Your task to perform on an android device: check data usage Image 0: 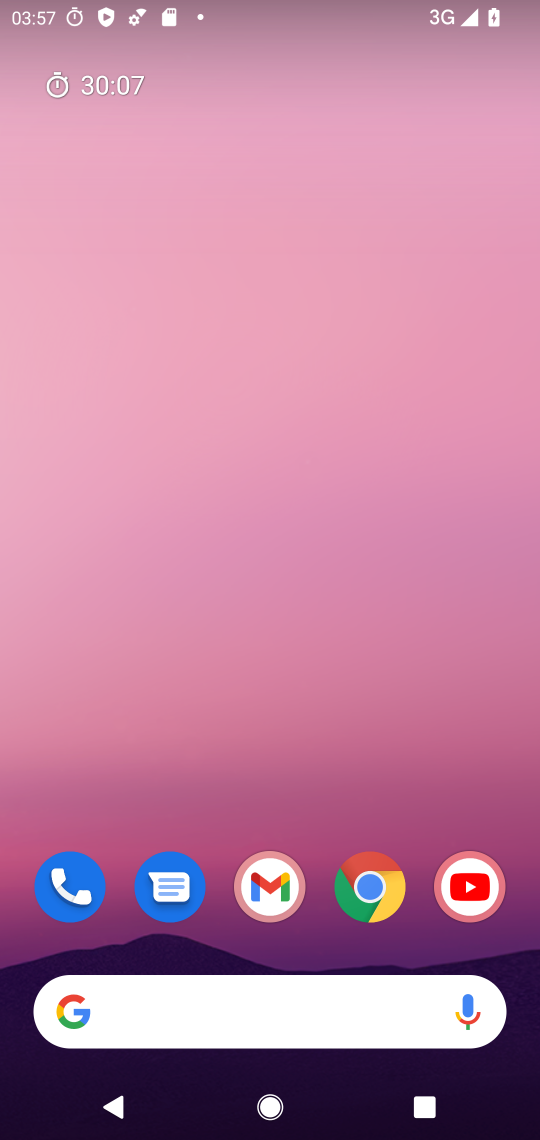
Step 0: press home button
Your task to perform on an android device: check data usage Image 1: 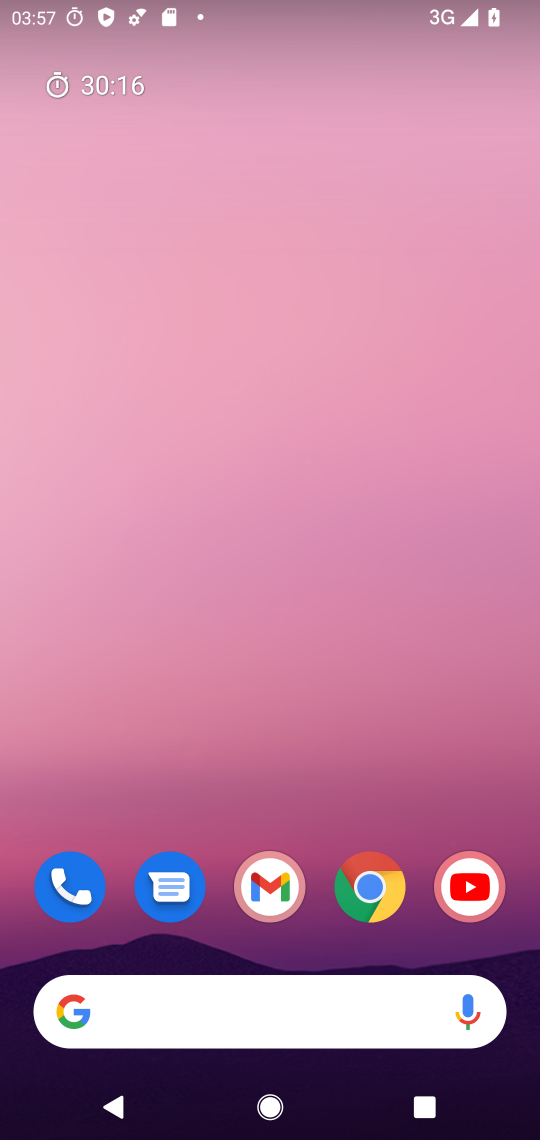
Step 1: drag from (385, 700) to (401, 310)
Your task to perform on an android device: check data usage Image 2: 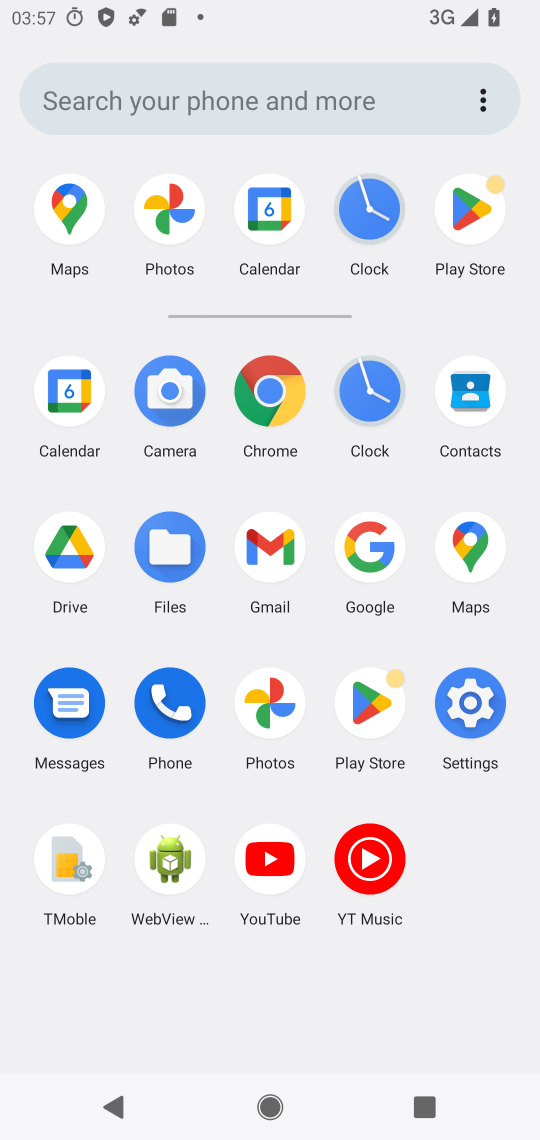
Step 2: click (467, 702)
Your task to perform on an android device: check data usage Image 3: 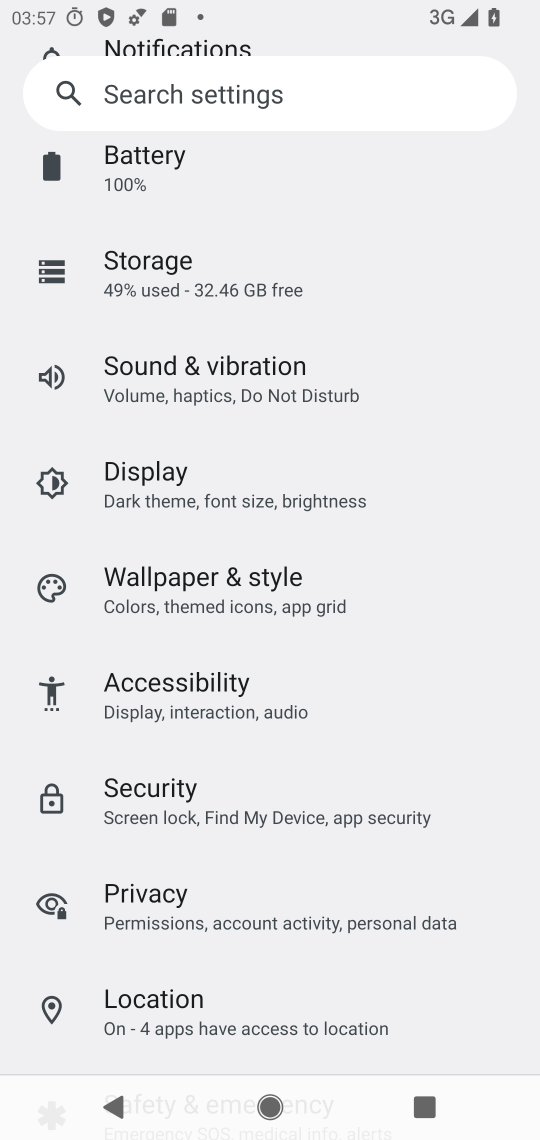
Step 3: drag from (446, 300) to (441, 466)
Your task to perform on an android device: check data usage Image 4: 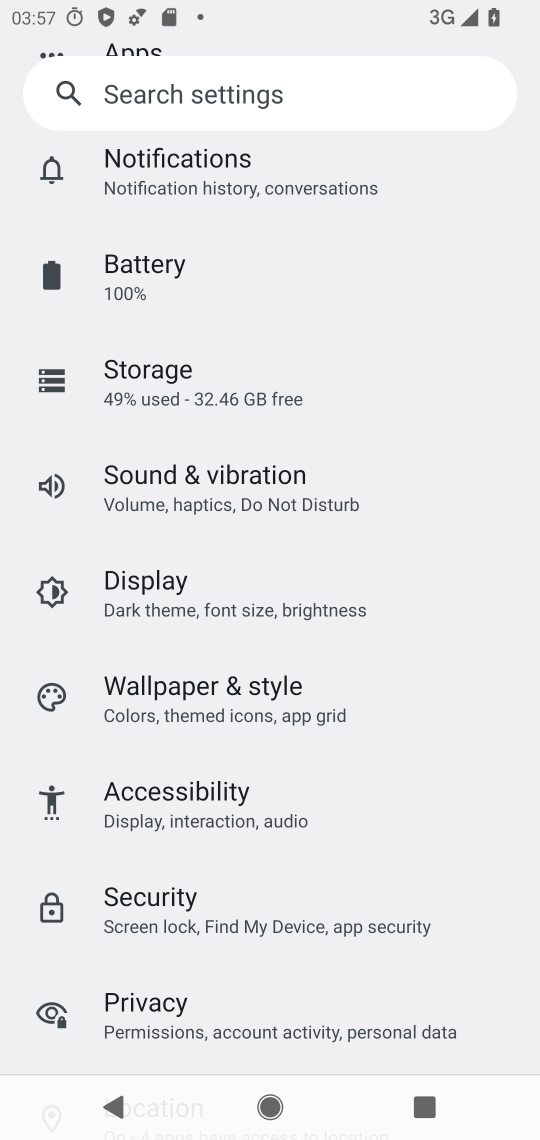
Step 4: drag from (453, 216) to (437, 409)
Your task to perform on an android device: check data usage Image 5: 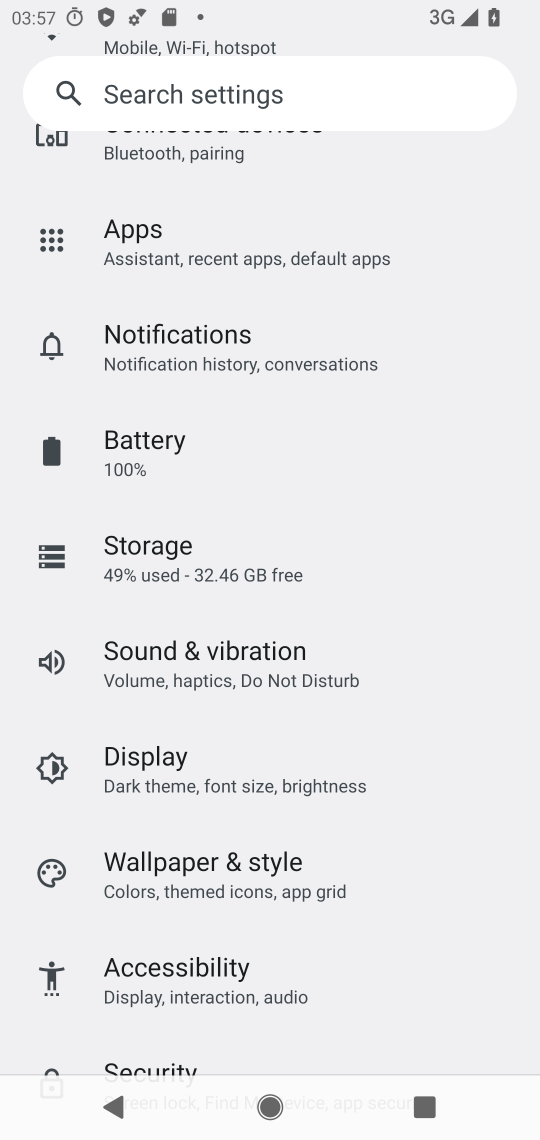
Step 5: drag from (461, 192) to (452, 422)
Your task to perform on an android device: check data usage Image 6: 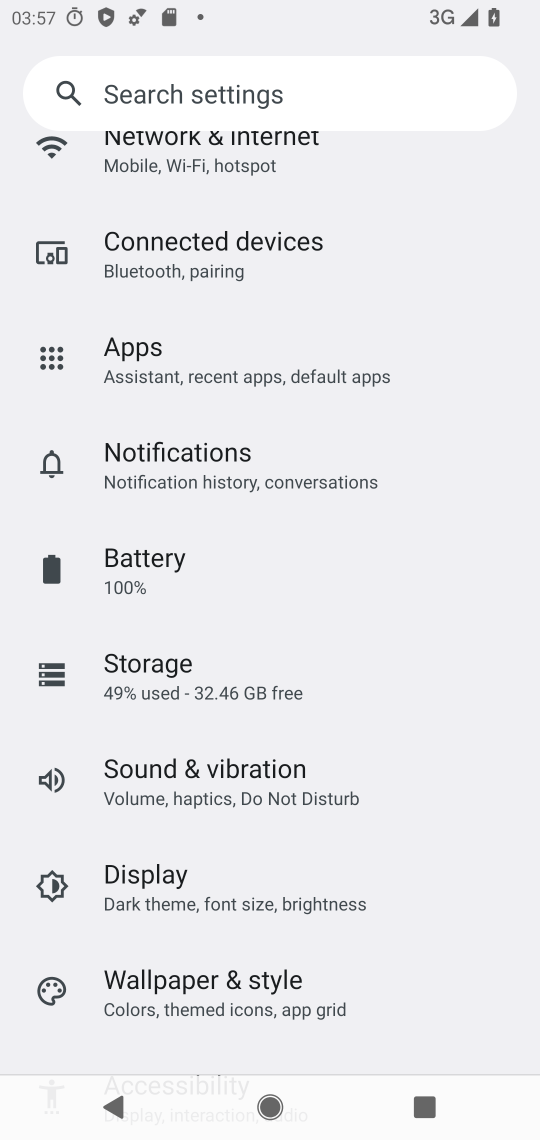
Step 6: drag from (478, 191) to (484, 374)
Your task to perform on an android device: check data usage Image 7: 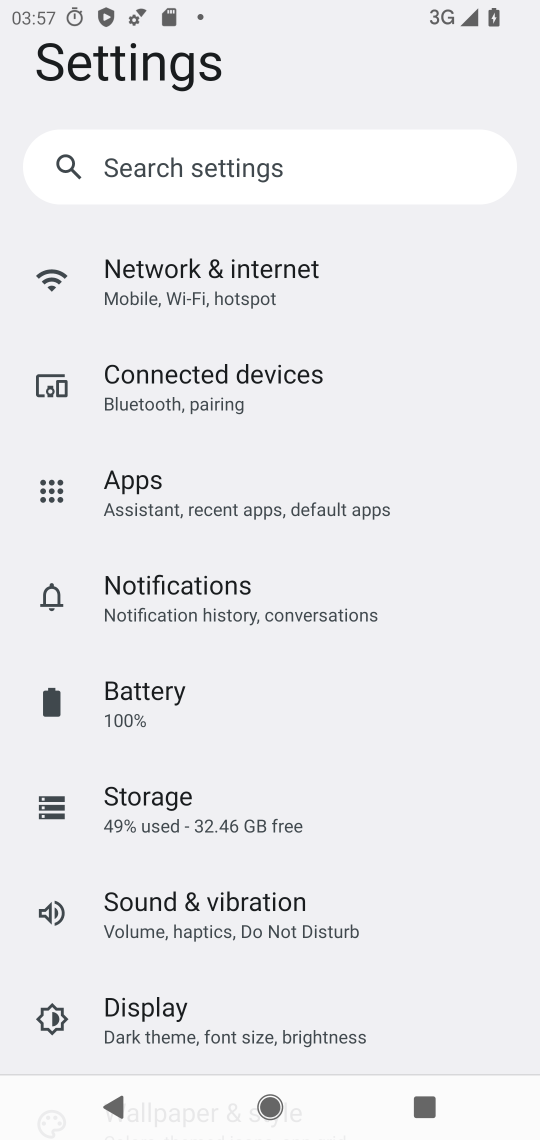
Step 7: drag from (489, 280) to (481, 480)
Your task to perform on an android device: check data usage Image 8: 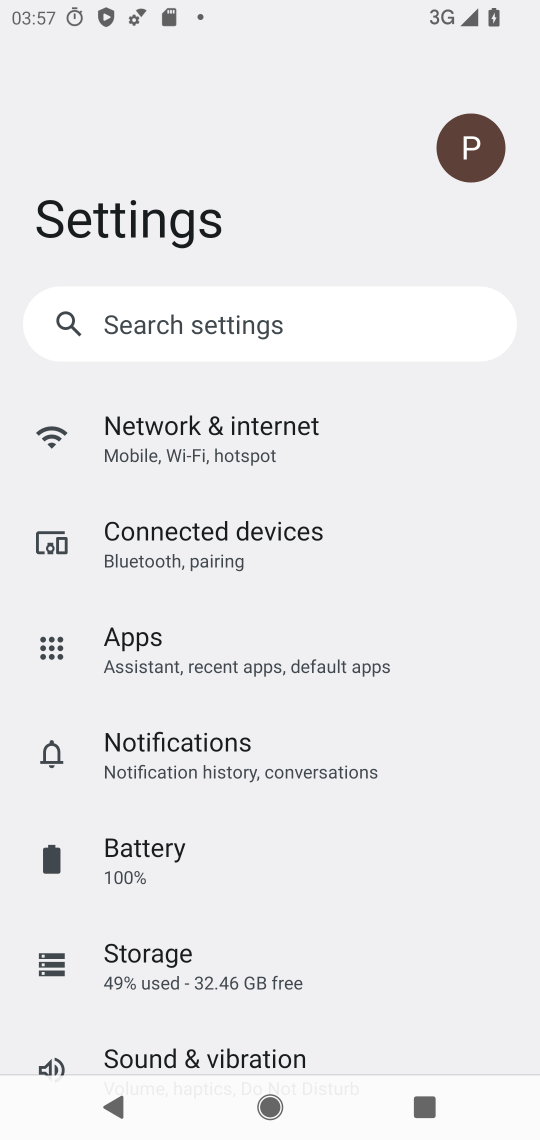
Step 8: drag from (450, 621) to (471, 372)
Your task to perform on an android device: check data usage Image 9: 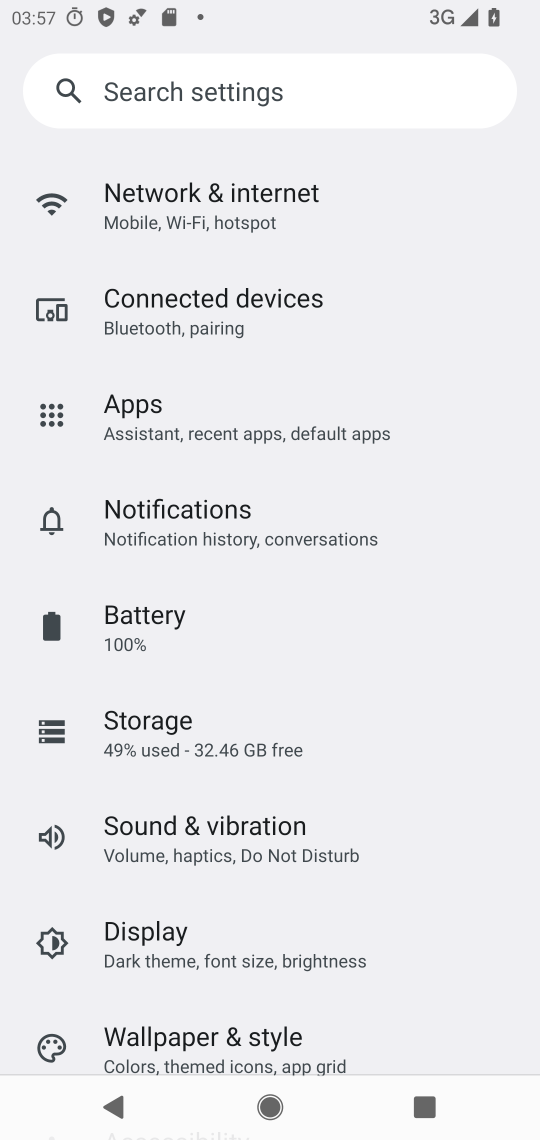
Step 9: drag from (463, 550) to (468, 457)
Your task to perform on an android device: check data usage Image 10: 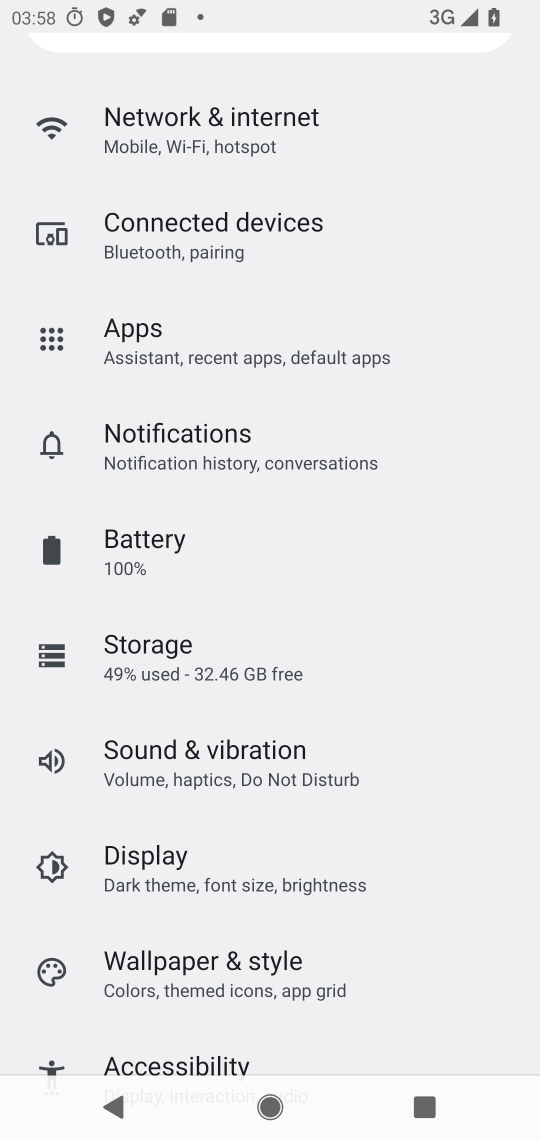
Step 10: click (281, 124)
Your task to perform on an android device: check data usage Image 11: 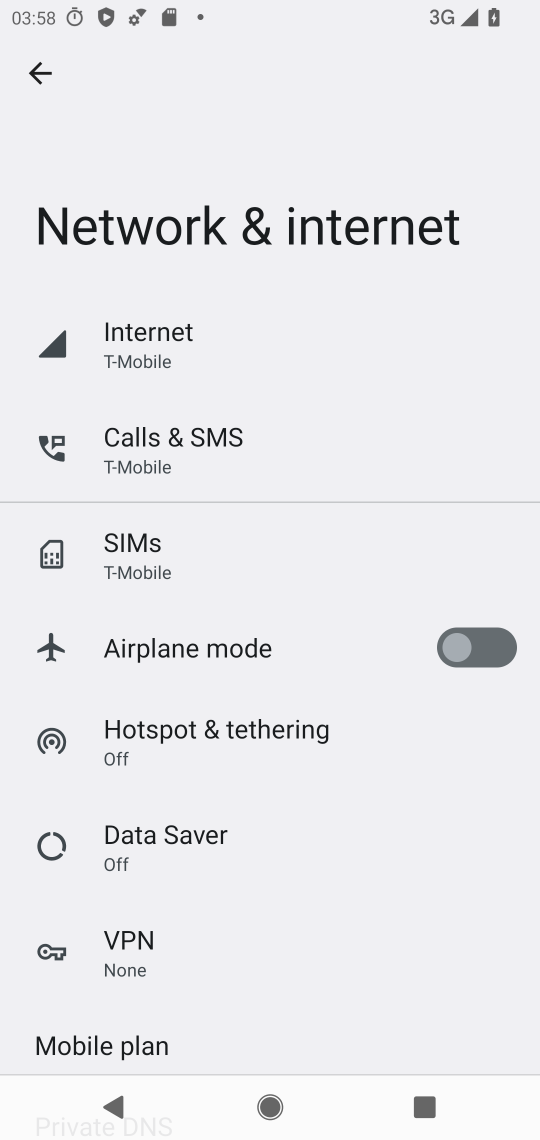
Step 11: click (159, 361)
Your task to perform on an android device: check data usage Image 12: 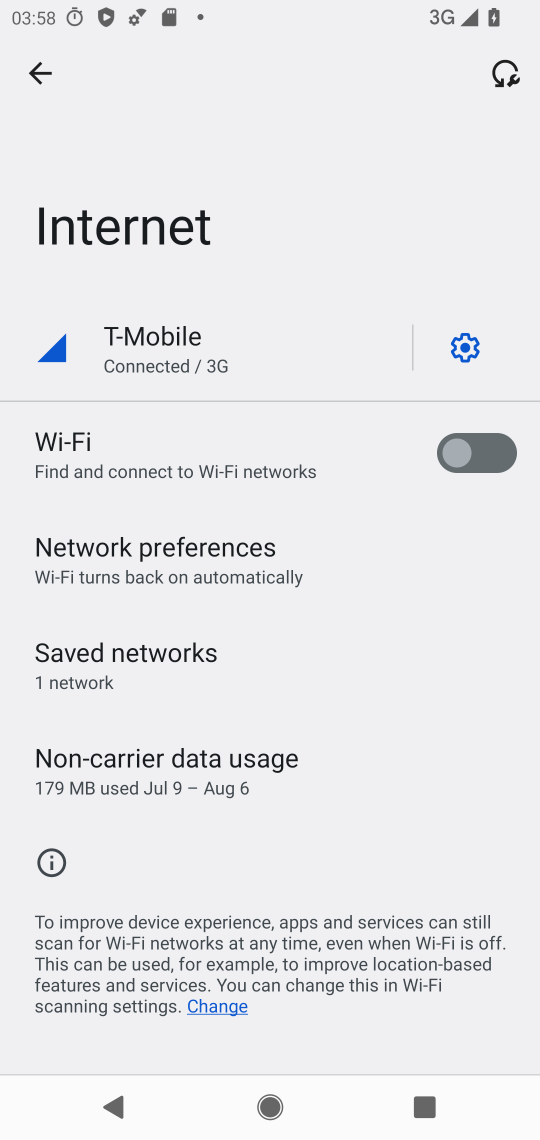
Step 12: click (271, 781)
Your task to perform on an android device: check data usage Image 13: 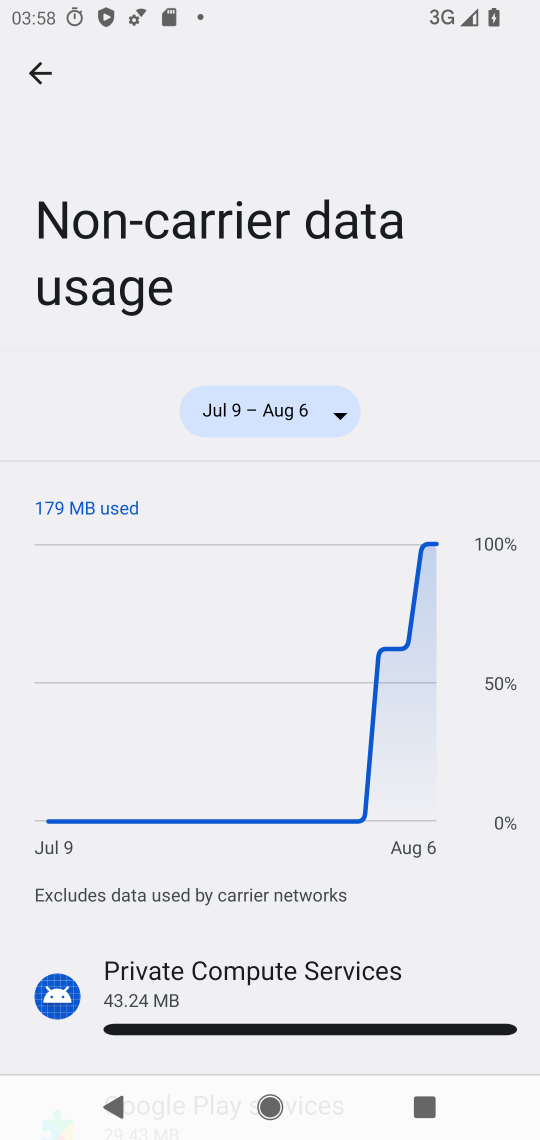
Step 13: task complete